Your task to perform on an android device: Open calendar and show me the fourth week of next month Image 0: 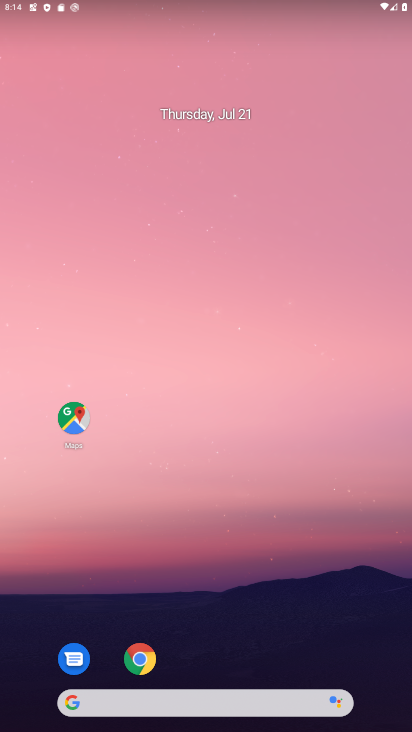
Step 0: drag from (202, 673) to (241, 74)
Your task to perform on an android device: Open calendar and show me the fourth week of next month Image 1: 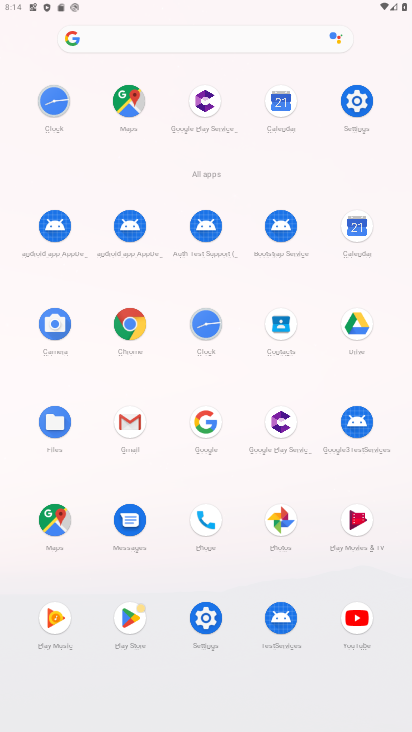
Step 1: click (357, 227)
Your task to perform on an android device: Open calendar and show me the fourth week of next month Image 2: 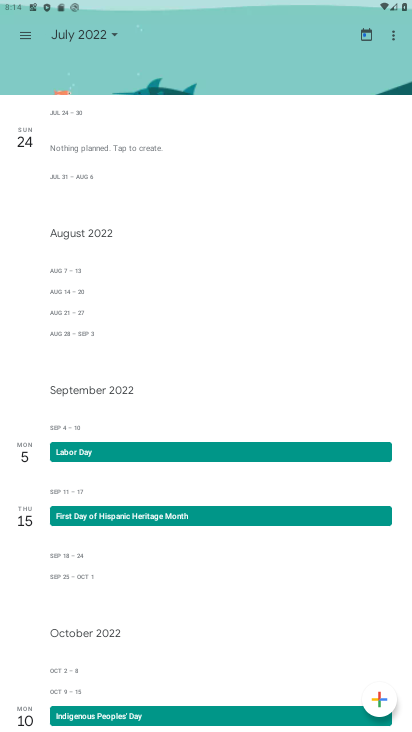
Step 2: click (107, 29)
Your task to perform on an android device: Open calendar and show me the fourth week of next month Image 3: 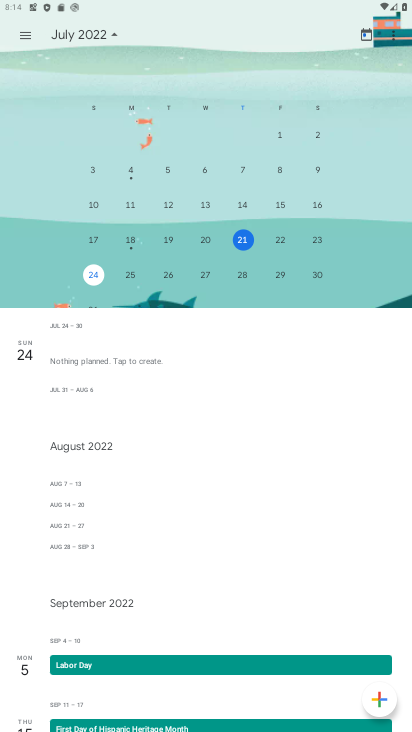
Step 3: drag from (309, 205) to (15, 193)
Your task to perform on an android device: Open calendar and show me the fourth week of next month Image 4: 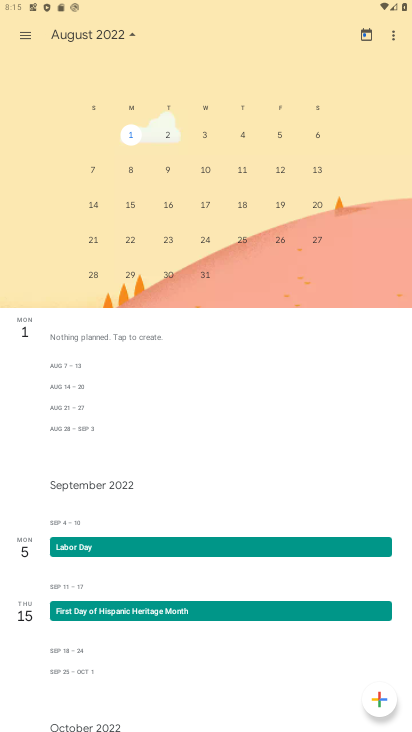
Step 4: click (20, 32)
Your task to perform on an android device: Open calendar and show me the fourth week of next month Image 5: 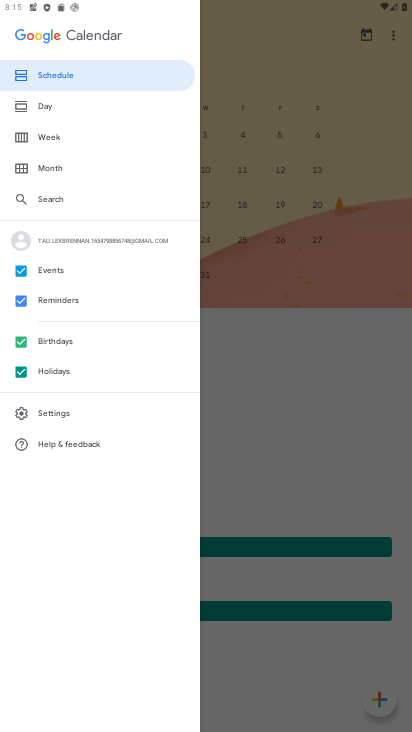
Step 5: click (53, 129)
Your task to perform on an android device: Open calendar and show me the fourth week of next month Image 6: 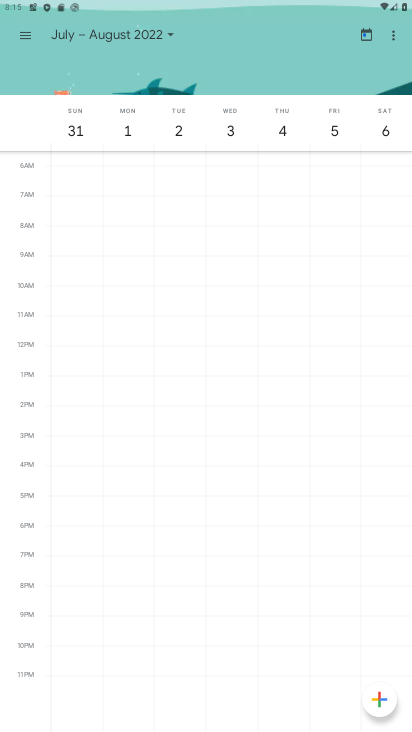
Step 6: click (164, 36)
Your task to perform on an android device: Open calendar and show me the fourth week of next month Image 7: 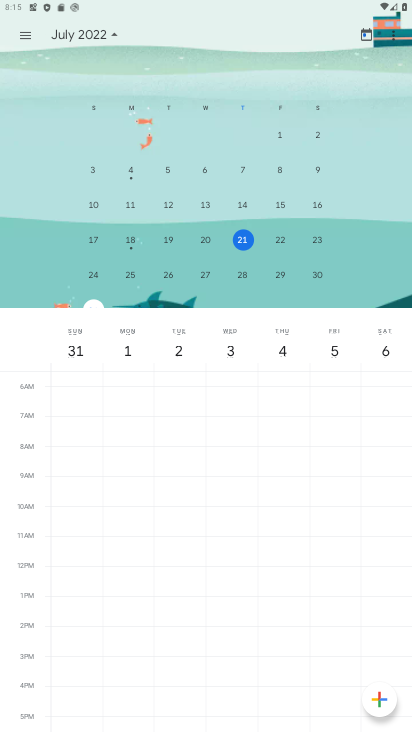
Step 7: drag from (303, 207) to (116, 203)
Your task to perform on an android device: Open calendar and show me the fourth week of next month Image 8: 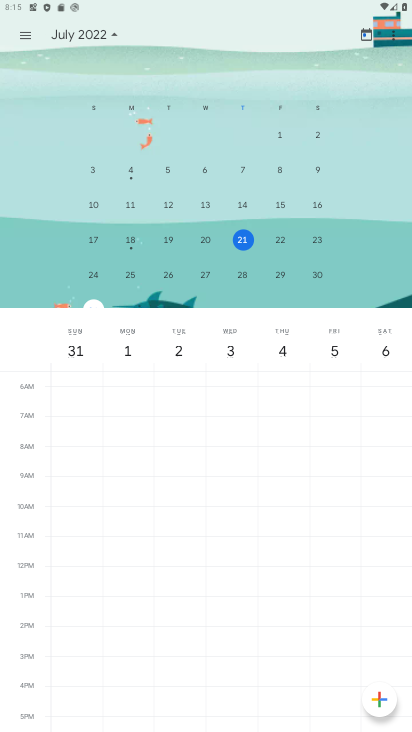
Step 8: drag from (338, 212) to (40, 214)
Your task to perform on an android device: Open calendar and show me the fourth week of next month Image 9: 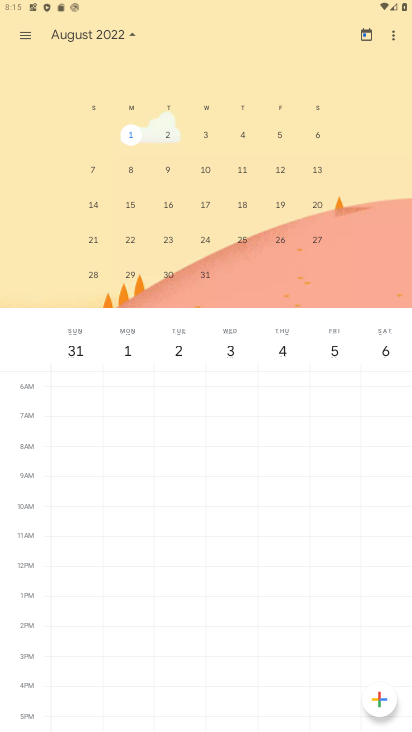
Step 9: click (91, 241)
Your task to perform on an android device: Open calendar and show me the fourth week of next month Image 10: 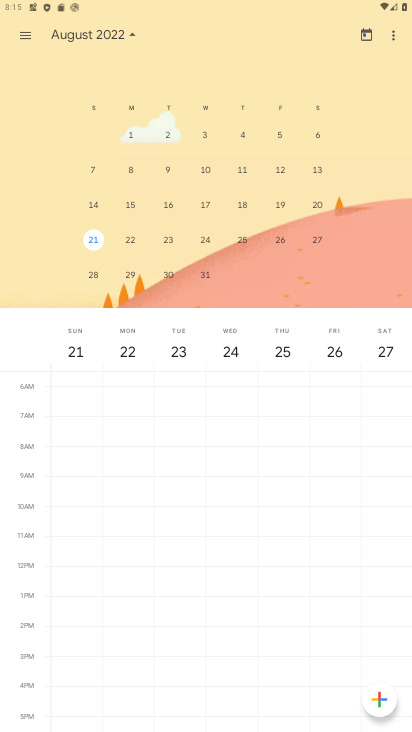
Step 10: click (118, 31)
Your task to perform on an android device: Open calendar and show me the fourth week of next month Image 11: 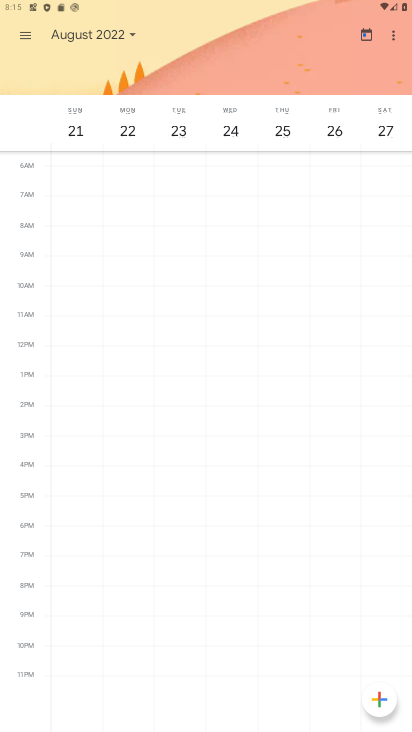
Step 11: task complete